Your task to perform on an android device: install app "YouTube Kids" Image 0: 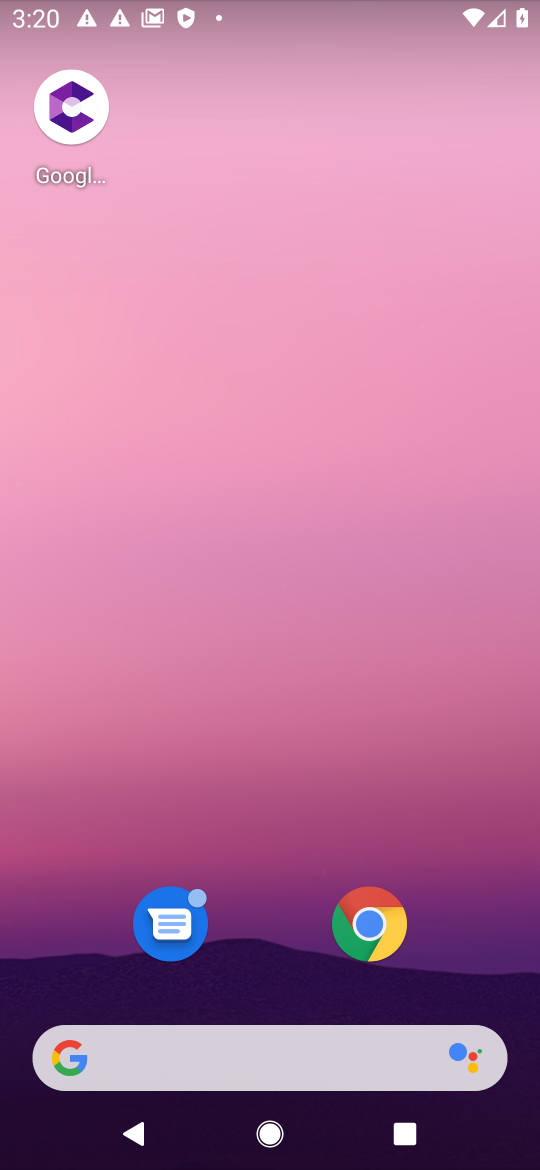
Step 0: drag from (322, 1100) to (322, 166)
Your task to perform on an android device: install app "YouTube Kids" Image 1: 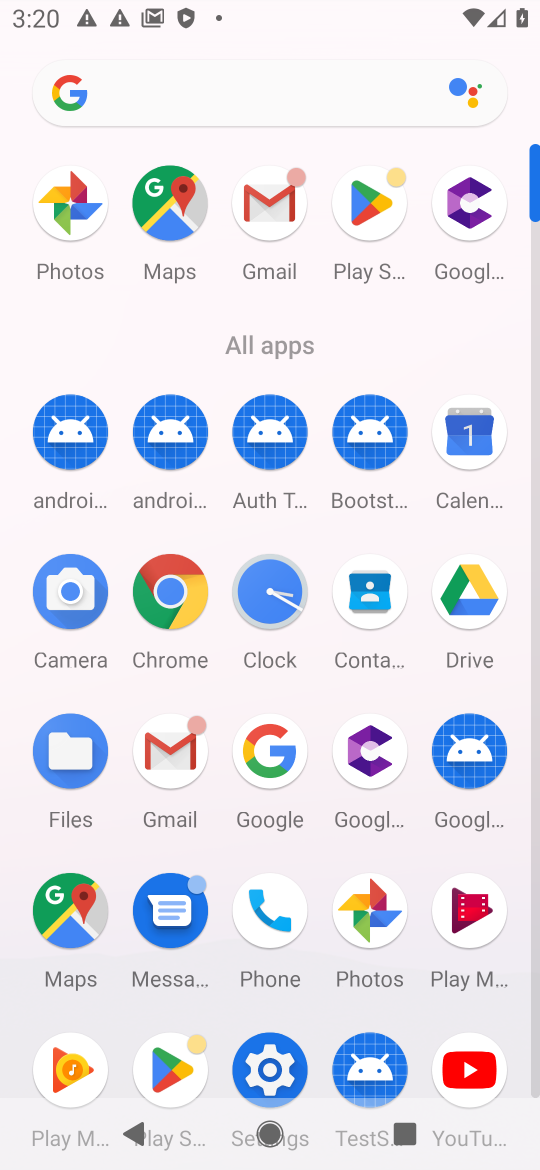
Step 1: click (365, 222)
Your task to perform on an android device: install app "YouTube Kids" Image 2: 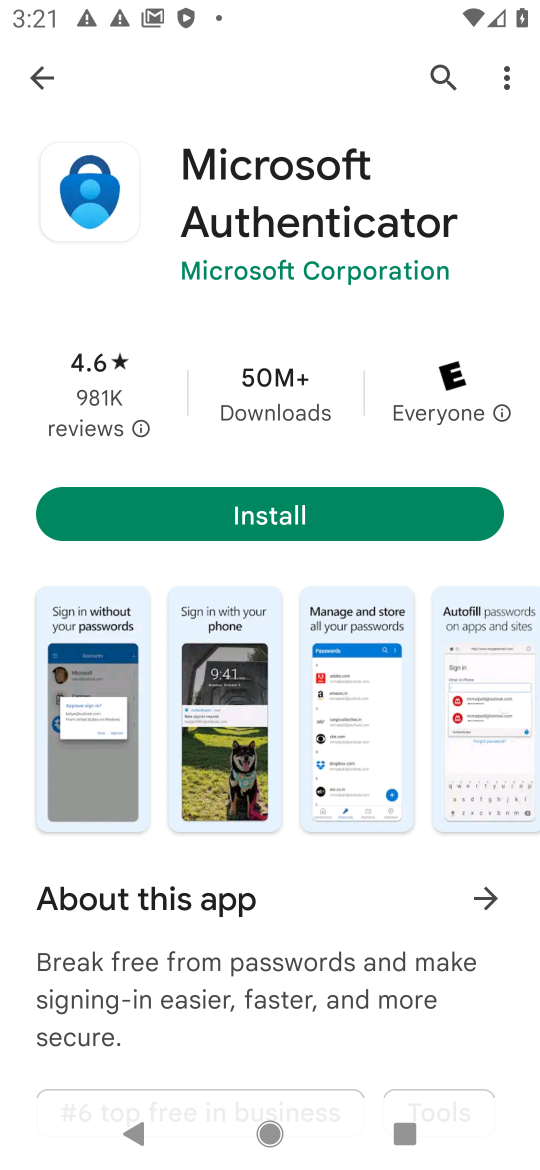
Step 2: click (441, 67)
Your task to perform on an android device: install app "YouTube Kids" Image 3: 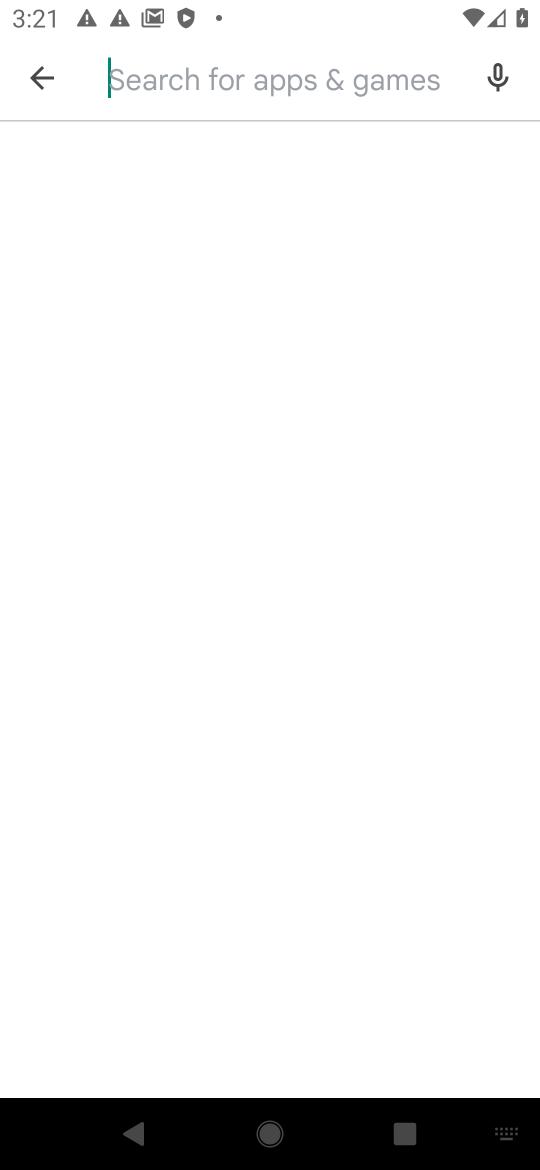
Step 3: type "Youtube Kids"
Your task to perform on an android device: install app "YouTube Kids" Image 4: 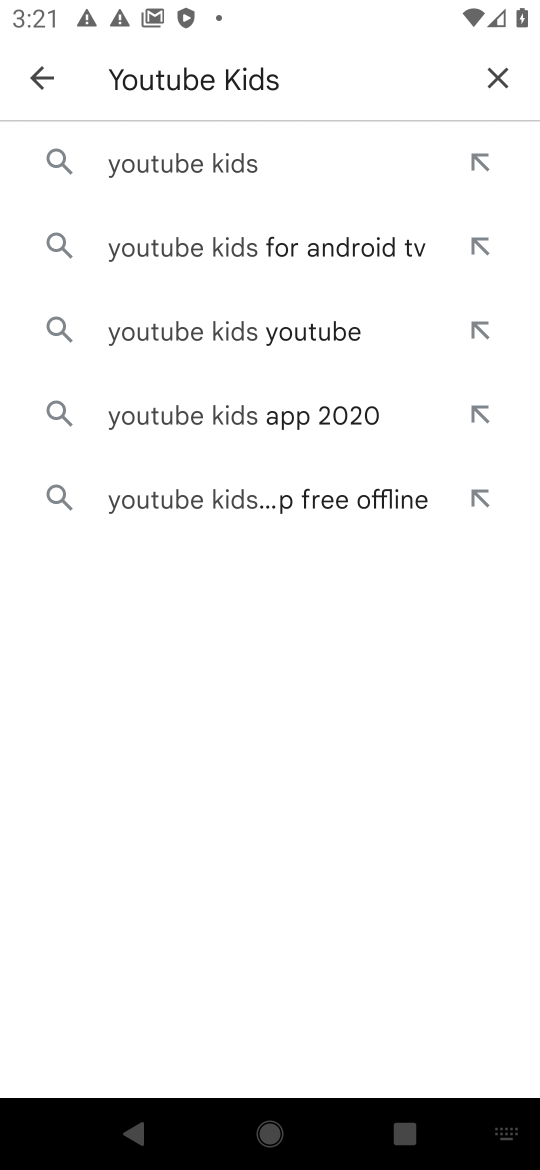
Step 4: click (190, 161)
Your task to perform on an android device: install app "YouTube Kids" Image 5: 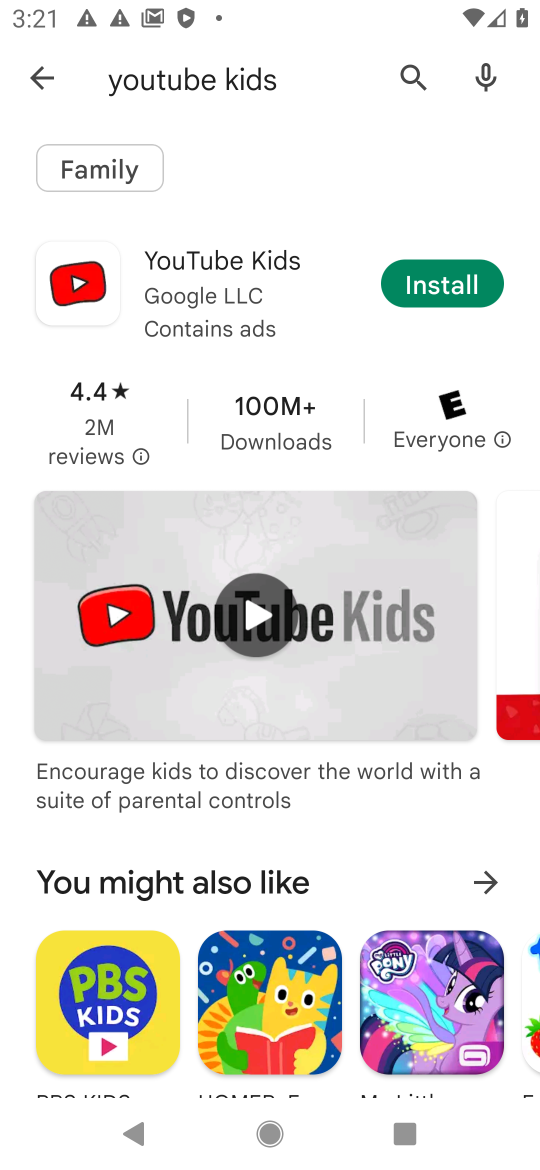
Step 5: click (455, 293)
Your task to perform on an android device: install app "YouTube Kids" Image 6: 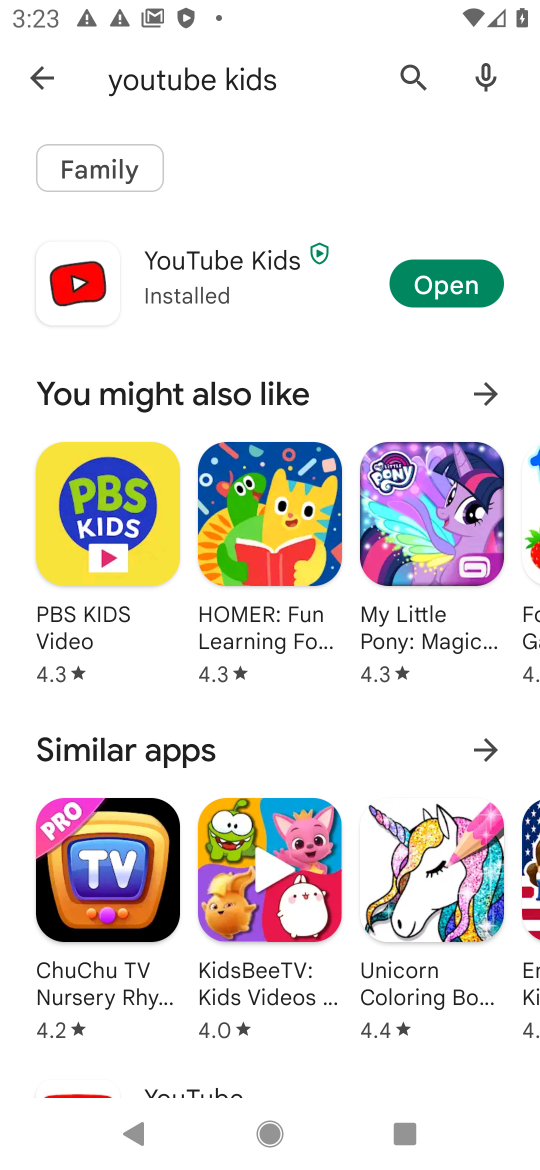
Step 6: task complete